Your task to perform on an android device: toggle pop-ups in chrome Image 0: 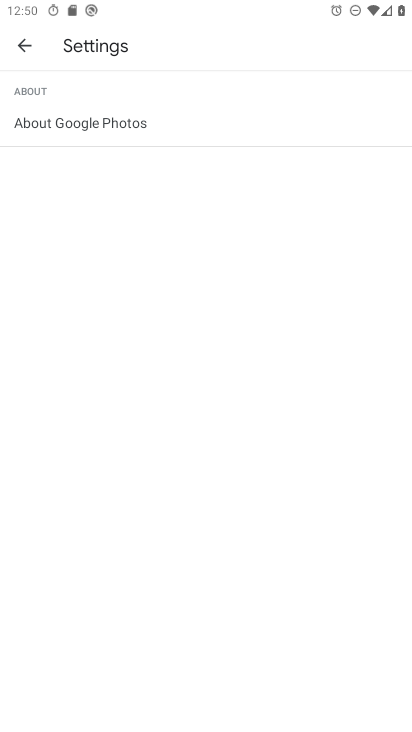
Step 0: drag from (385, 662) to (384, 562)
Your task to perform on an android device: toggle pop-ups in chrome Image 1: 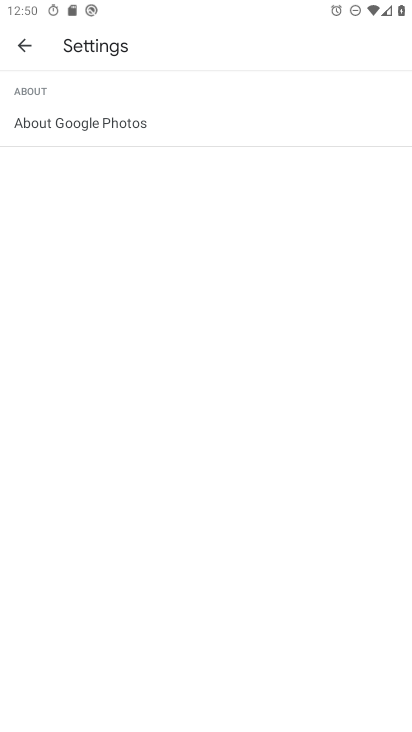
Step 1: press home button
Your task to perform on an android device: toggle pop-ups in chrome Image 2: 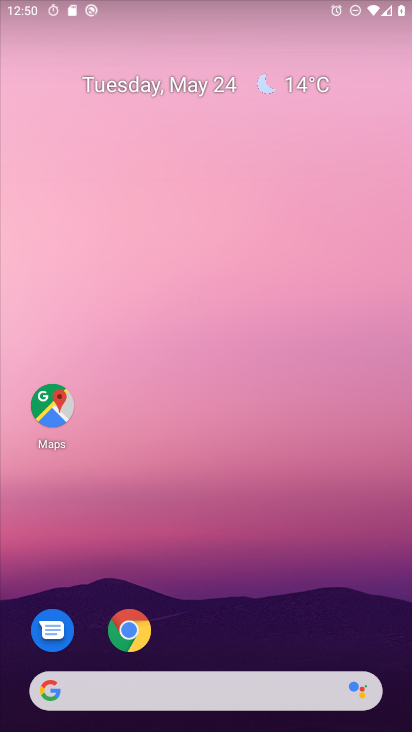
Step 2: drag from (382, 642) to (329, 128)
Your task to perform on an android device: toggle pop-ups in chrome Image 3: 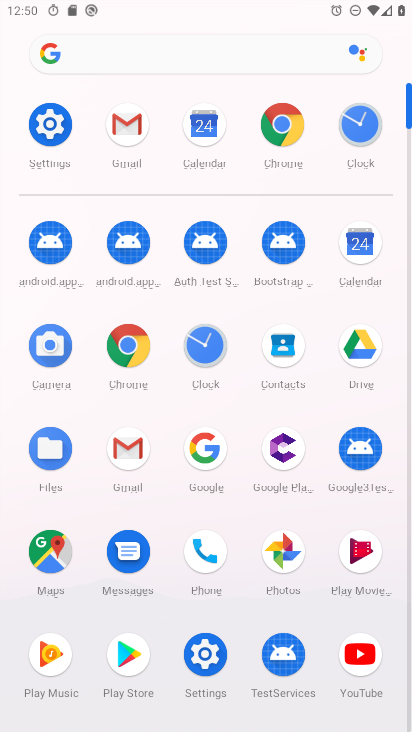
Step 3: click (134, 351)
Your task to perform on an android device: toggle pop-ups in chrome Image 4: 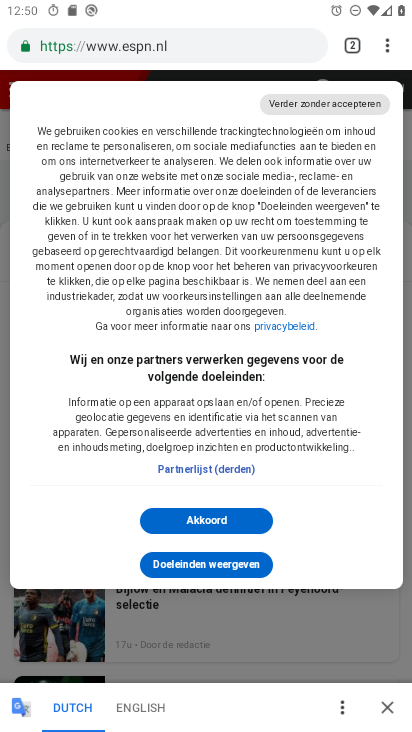
Step 4: drag from (400, 47) to (277, 544)
Your task to perform on an android device: toggle pop-ups in chrome Image 5: 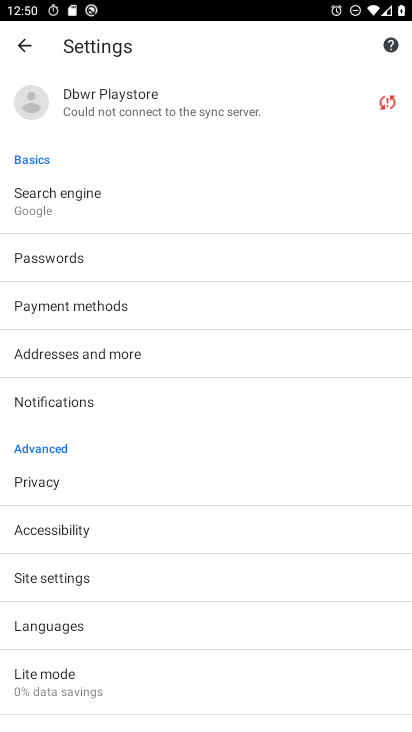
Step 5: drag from (184, 680) to (176, 464)
Your task to perform on an android device: toggle pop-ups in chrome Image 6: 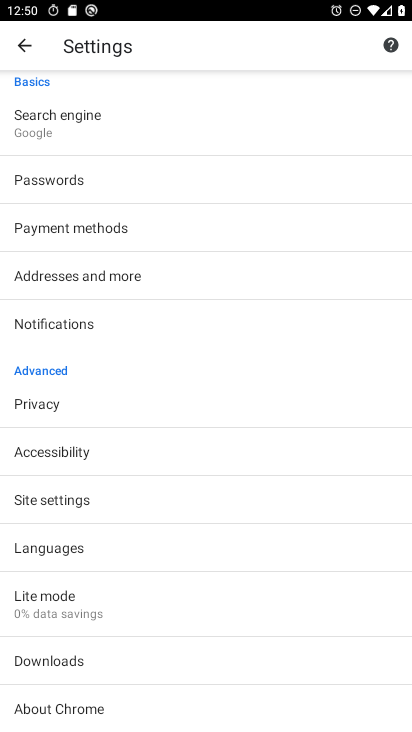
Step 6: click (149, 491)
Your task to perform on an android device: toggle pop-ups in chrome Image 7: 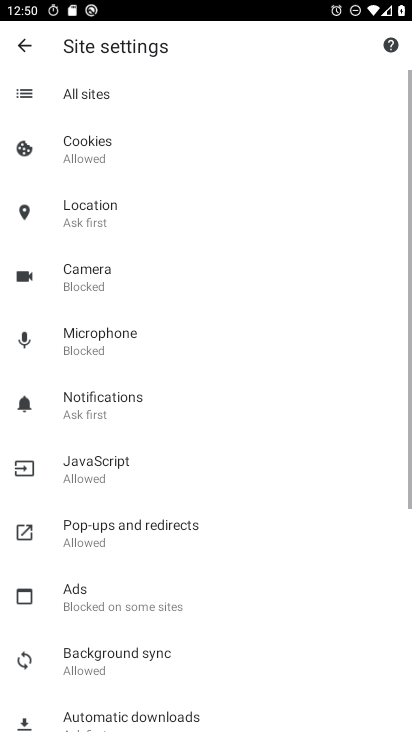
Step 7: drag from (273, 627) to (304, 394)
Your task to perform on an android device: toggle pop-ups in chrome Image 8: 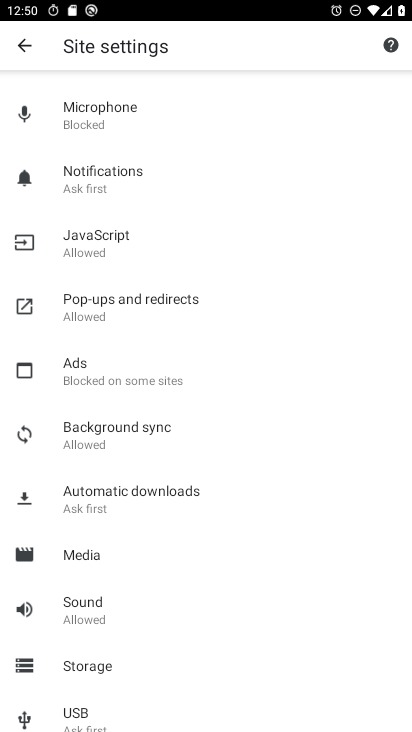
Step 8: click (176, 309)
Your task to perform on an android device: toggle pop-ups in chrome Image 9: 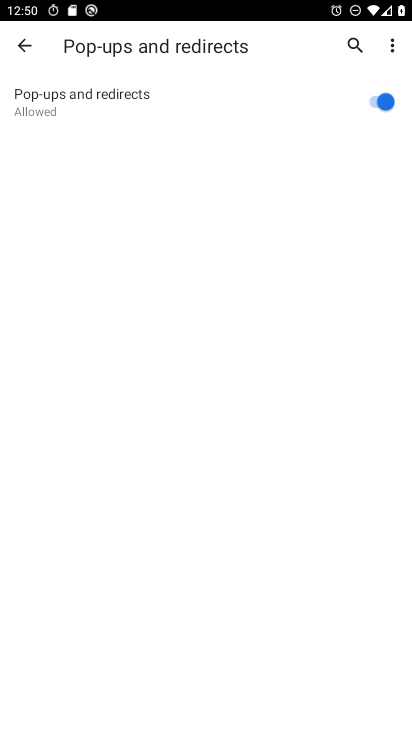
Step 9: click (373, 106)
Your task to perform on an android device: toggle pop-ups in chrome Image 10: 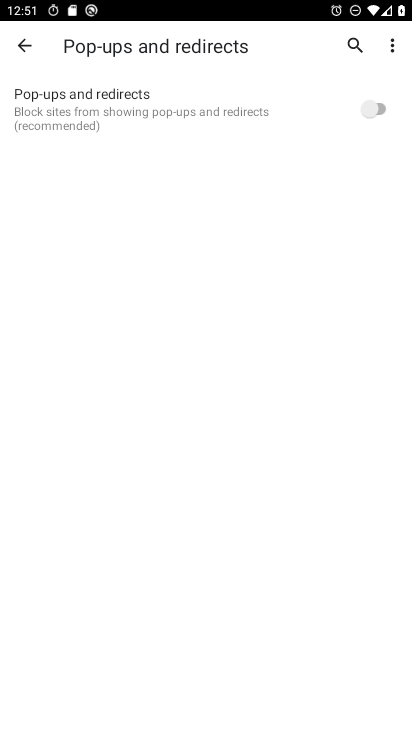
Step 10: task complete